Your task to perform on an android device: change text size in settings app Image 0: 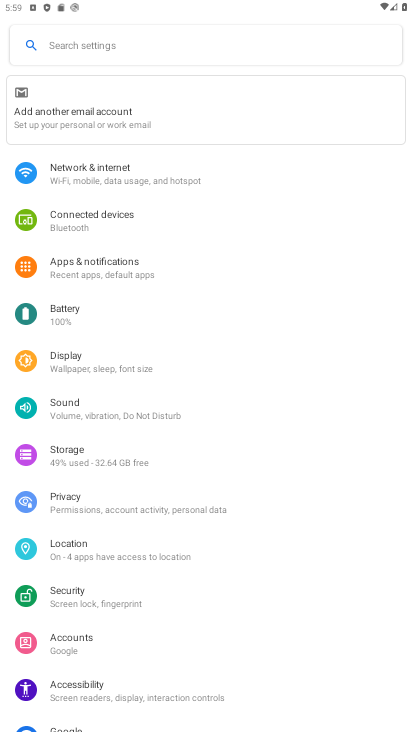
Step 0: click (93, 367)
Your task to perform on an android device: change text size in settings app Image 1: 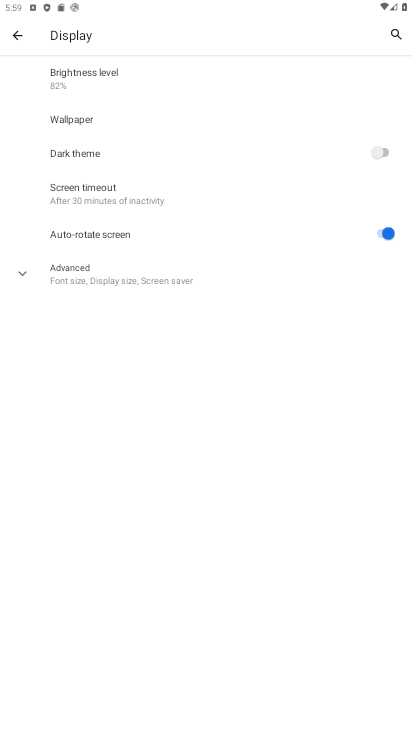
Step 1: click (134, 280)
Your task to perform on an android device: change text size in settings app Image 2: 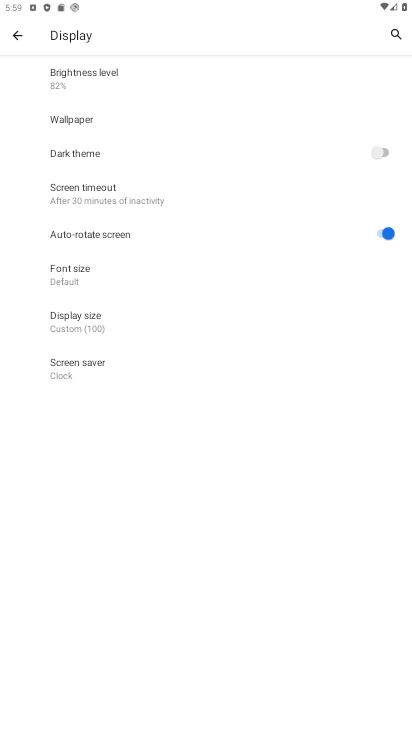
Step 2: task complete